Your task to perform on an android device: Show me recent news Image 0: 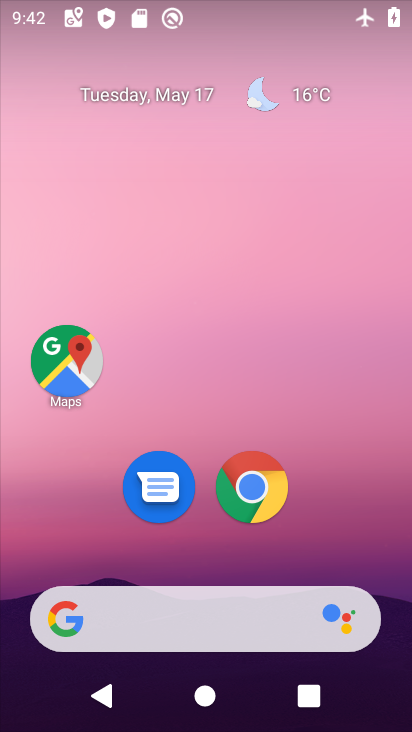
Step 0: drag from (198, 553) to (265, 105)
Your task to perform on an android device: Show me recent news Image 1: 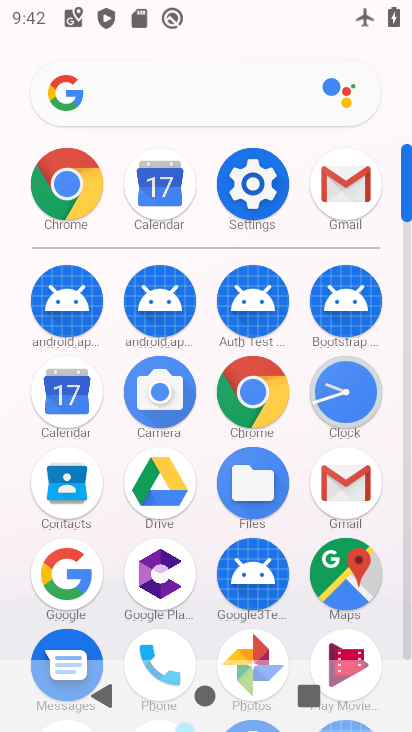
Step 1: click (193, 106)
Your task to perform on an android device: Show me recent news Image 2: 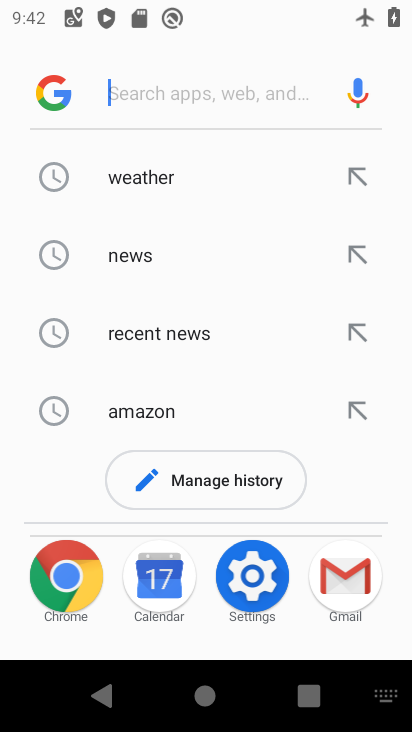
Step 2: type "recent news"
Your task to perform on an android device: Show me recent news Image 3: 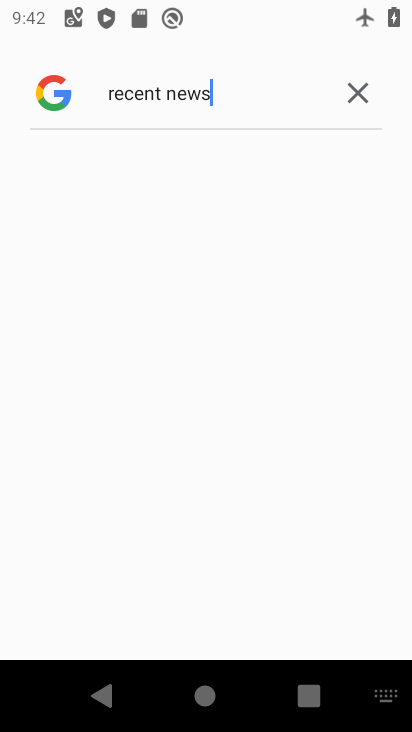
Step 3: click (138, 94)
Your task to perform on an android device: Show me recent news Image 4: 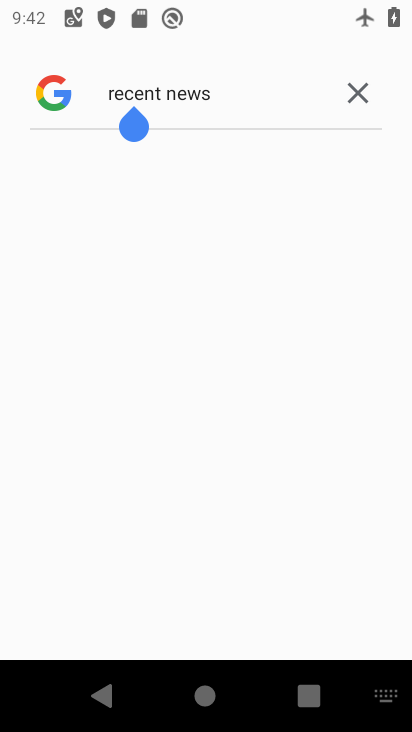
Step 4: task complete